Your task to perform on an android device: check android version Image 0: 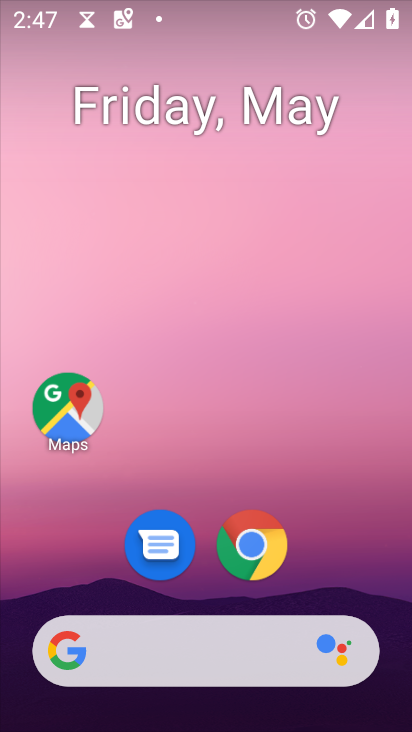
Step 0: drag from (348, 554) to (248, 151)
Your task to perform on an android device: check android version Image 1: 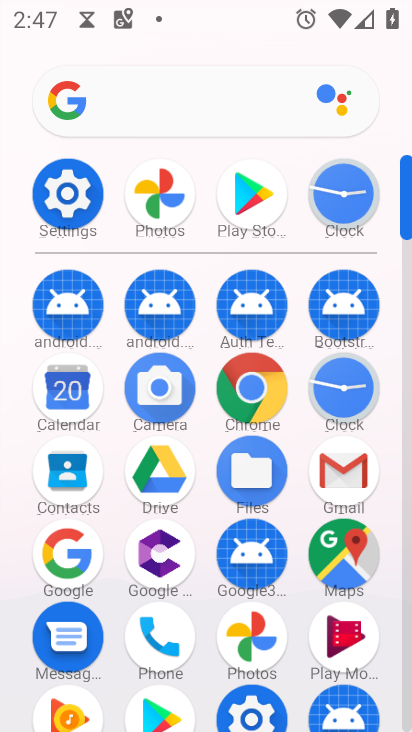
Step 1: click (73, 198)
Your task to perform on an android device: check android version Image 2: 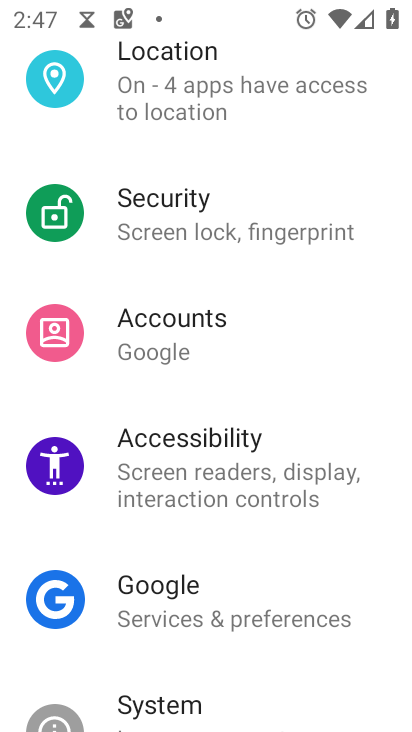
Step 2: drag from (263, 594) to (249, 276)
Your task to perform on an android device: check android version Image 3: 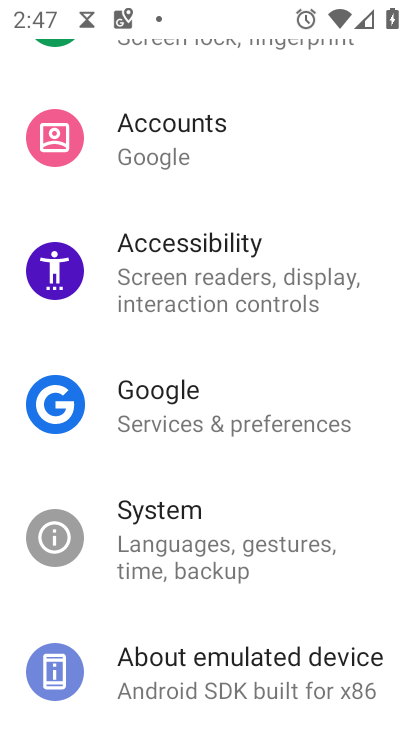
Step 3: click (266, 688)
Your task to perform on an android device: check android version Image 4: 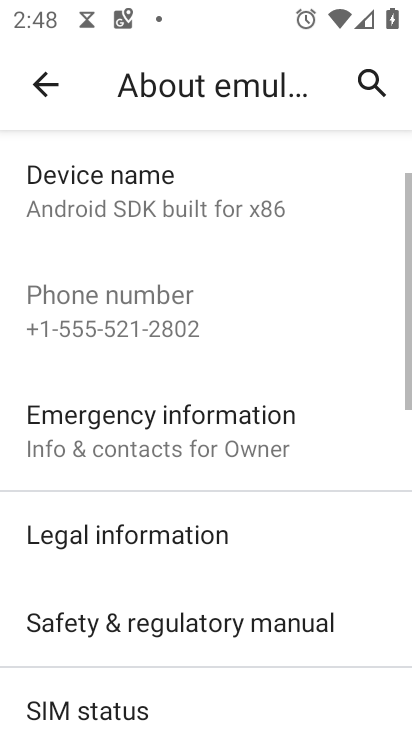
Step 4: drag from (267, 585) to (235, 433)
Your task to perform on an android device: check android version Image 5: 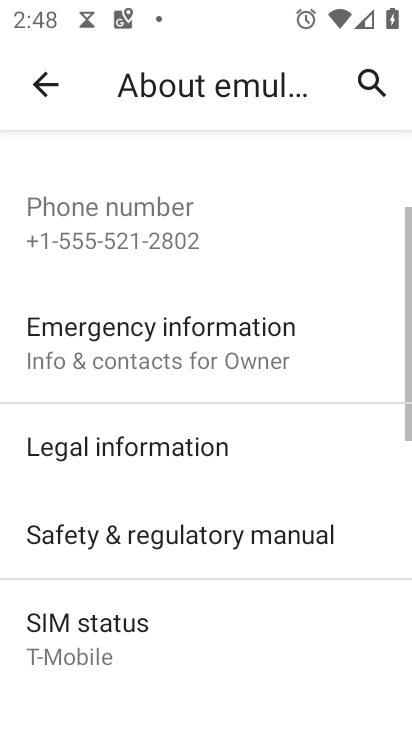
Step 5: drag from (250, 665) to (225, 527)
Your task to perform on an android device: check android version Image 6: 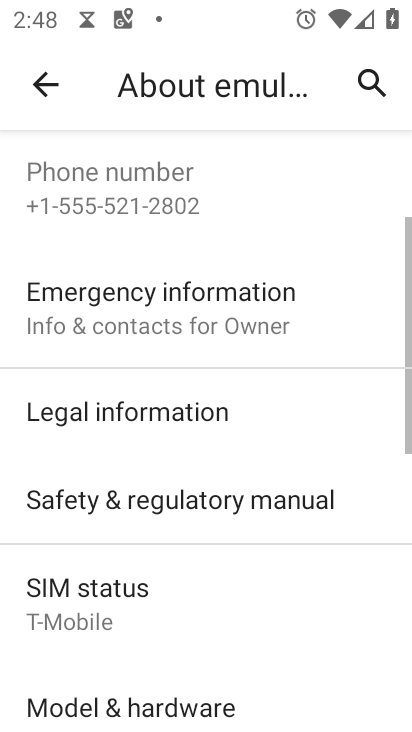
Step 6: drag from (266, 588) to (278, 274)
Your task to perform on an android device: check android version Image 7: 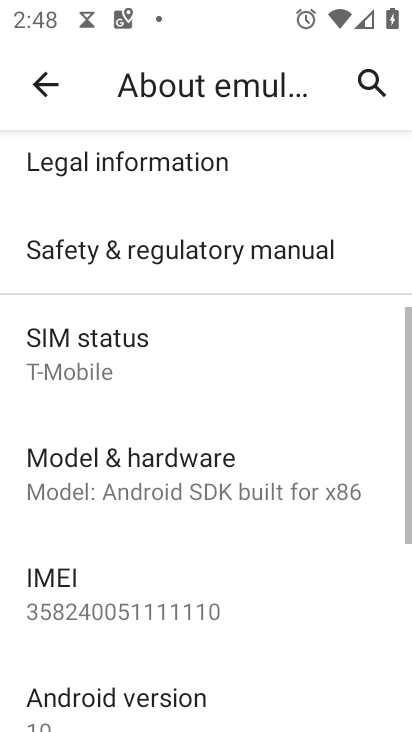
Step 7: click (172, 693)
Your task to perform on an android device: check android version Image 8: 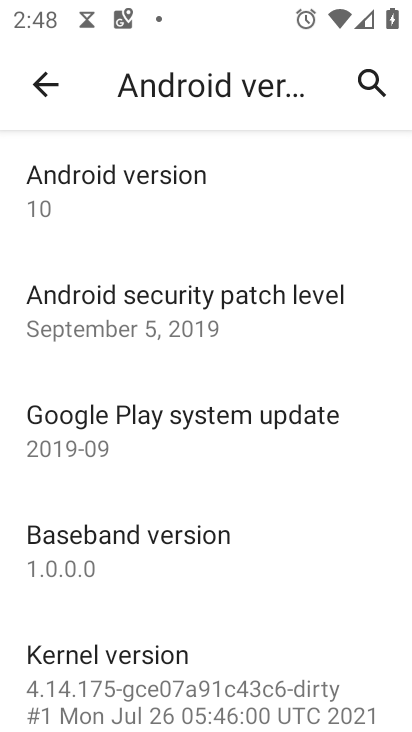
Step 8: task complete